Your task to perform on an android device: turn on priority inbox in the gmail app Image 0: 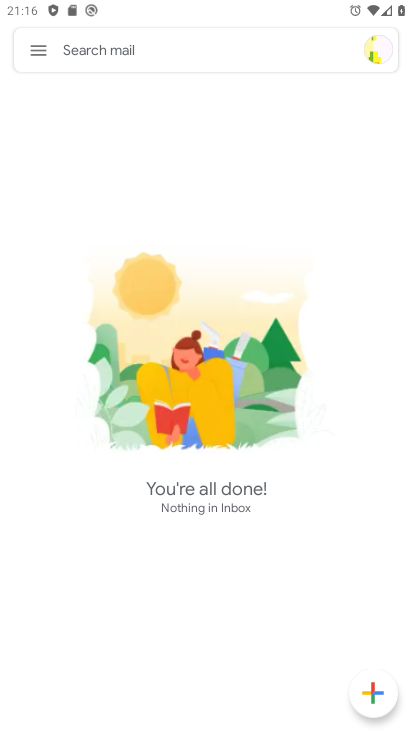
Step 0: click (41, 51)
Your task to perform on an android device: turn on priority inbox in the gmail app Image 1: 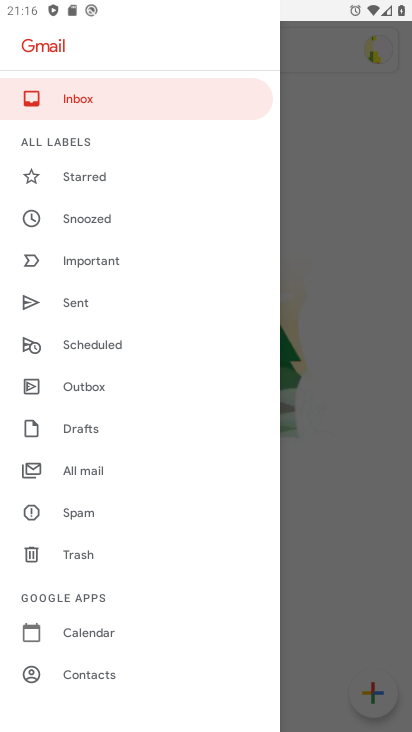
Step 1: drag from (129, 631) to (133, 294)
Your task to perform on an android device: turn on priority inbox in the gmail app Image 2: 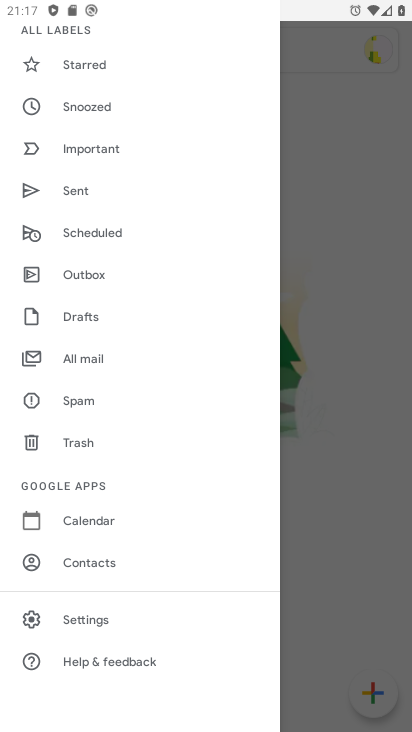
Step 2: click (88, 616)
Your task to perform on an android device: turn on priority inbox in the gmail app Image 3: 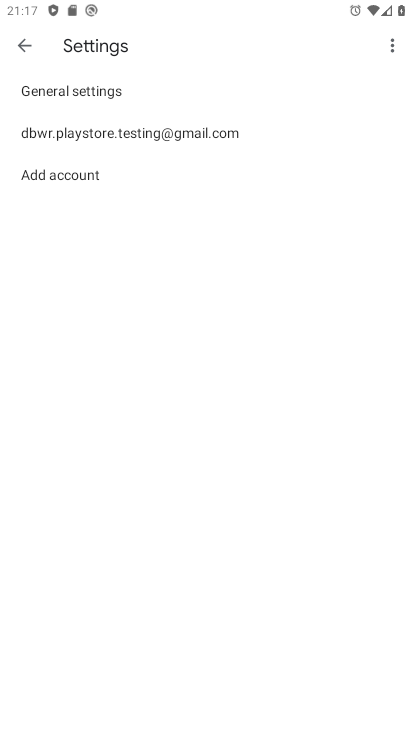
Step 3: click (172, 130)
Your task to perform on an android device: turn on priority inbox in the gmail app Image 4: 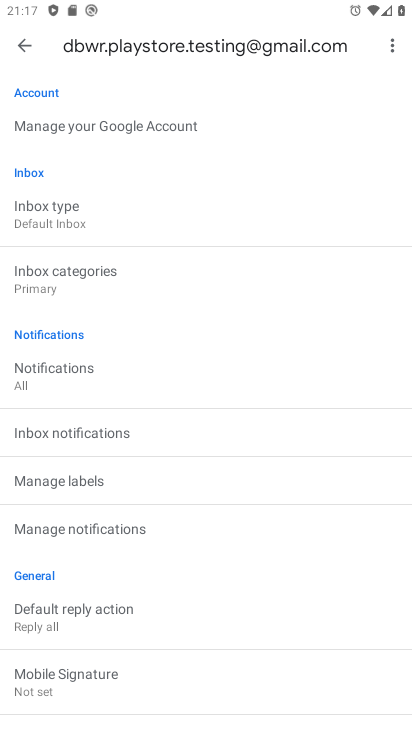
Step 4: drag from (52, 282) to (51, 501)
Your task to perform on an android device: turn on priority inbox in the gmail app Image 5: 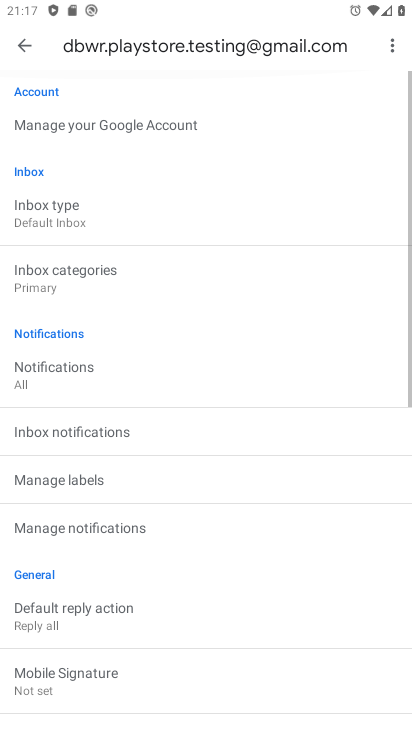
Step 5: click (42, 213)
Your task to perform on an android device: turn on priority inbox in the gmail app Image 6: 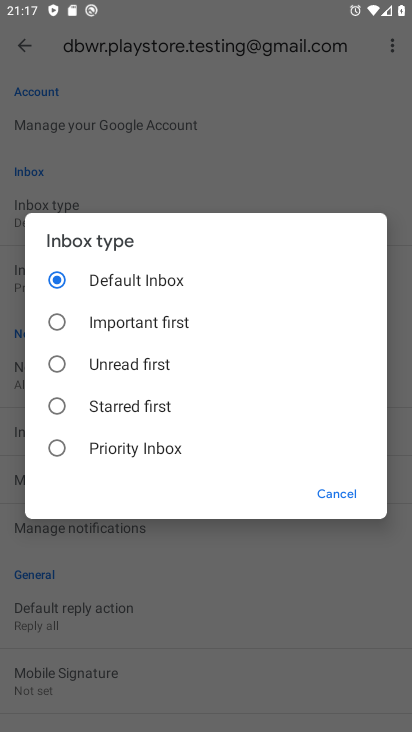
Step 6: click (58, 450)
Your task to perform on an android device: turn on priority inbox in the gmail app Image 7: 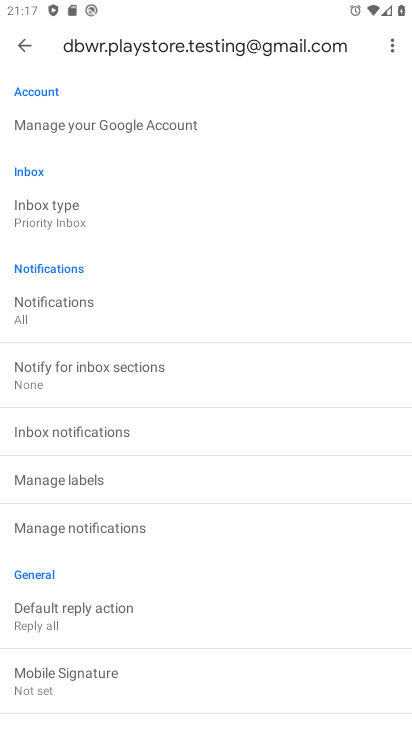
Step 7: task complete